Your task to perform on an android device: Empty the shopping cart on ebay.com. Add "razer blade" to the cart on ebay.com Image 0: 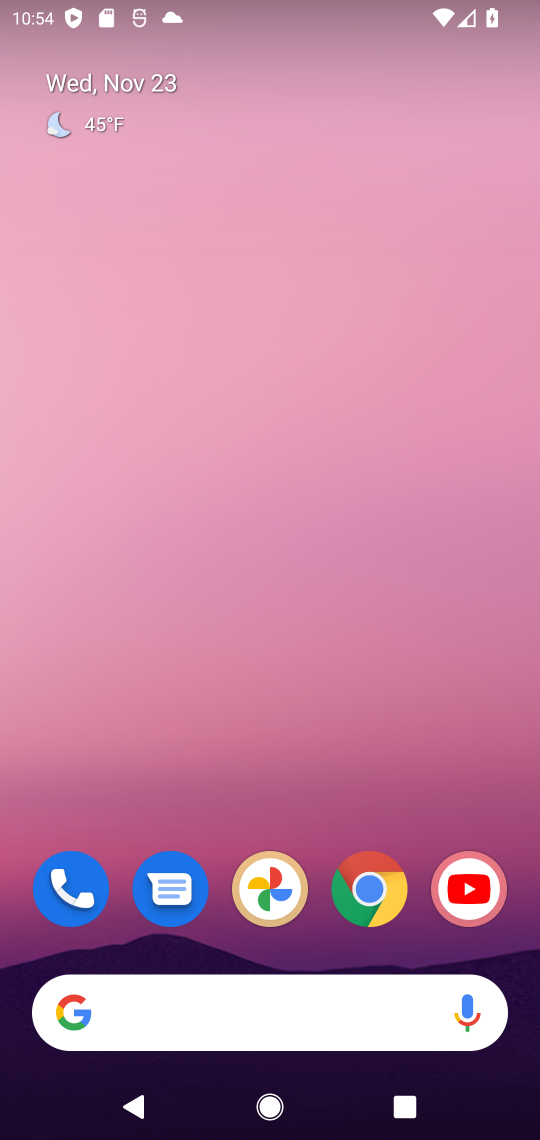
Step 0: click (365, 894)
Your task to perform on an android device: Empty the shopping cart on ebay.com. Add "razer blade" to the cart on ebay.com Image 1: 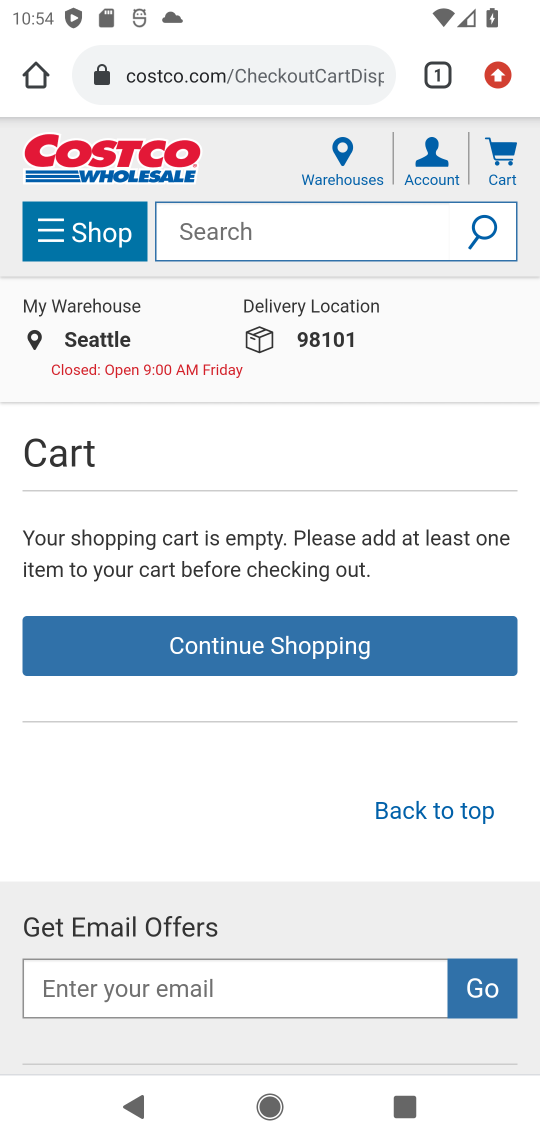
Step 1: click (187, 80)
Your task to perform on an android device: Empty the shopping cart on ebay.com. Add "razer blade" to the cart on ebay.com Image 2: 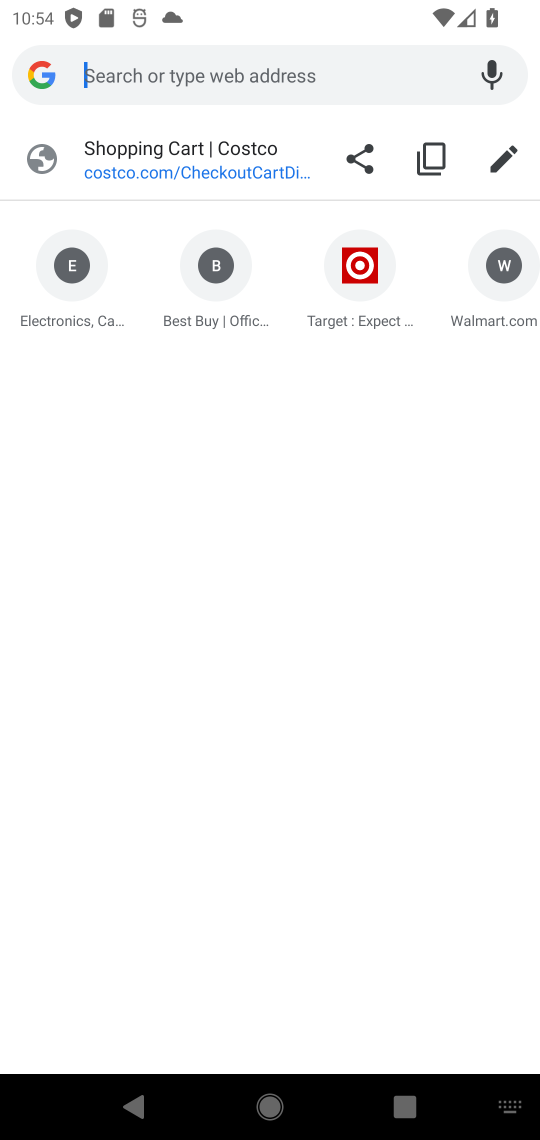
Step 2: type "ebay.com"
Your task to perform on an android device: Empty the shopping cart on ebay.com. Add "razer blade" to the cart on ebay.com Image 3: 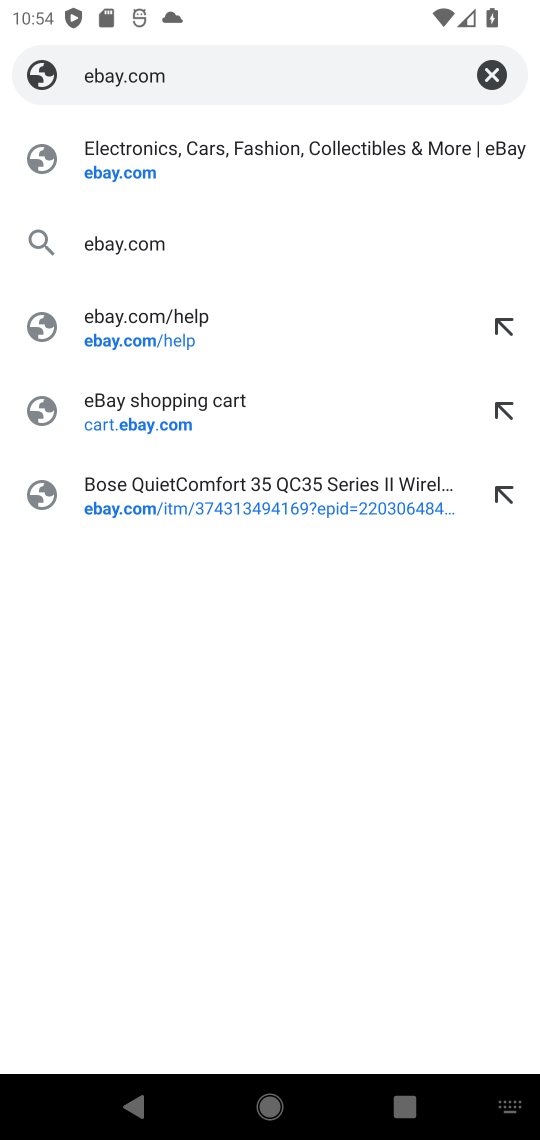
Step 3: click (117, 177)
Your task to perform on an android device: Empty the shopping cart on ebay.com. Add "razer blade" to the cart on ebay.com Image 4: 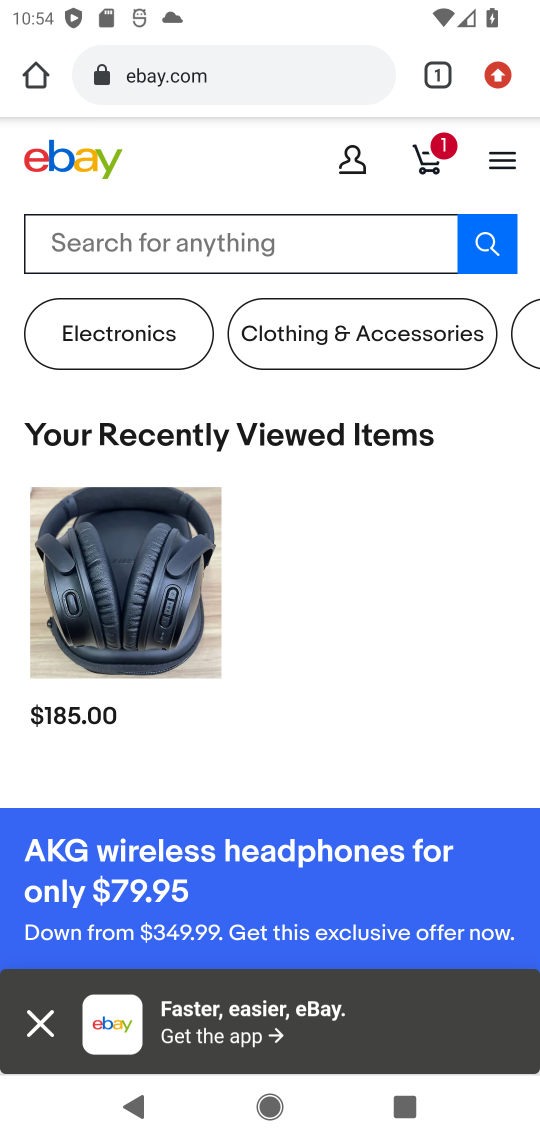
Step 4: drag from (260, 719) to (238, 839)
Your task to perform on an android device: Empty the shopping cart on ebay.com. Add "razer blade" to the cart on ebay.com Image 5: 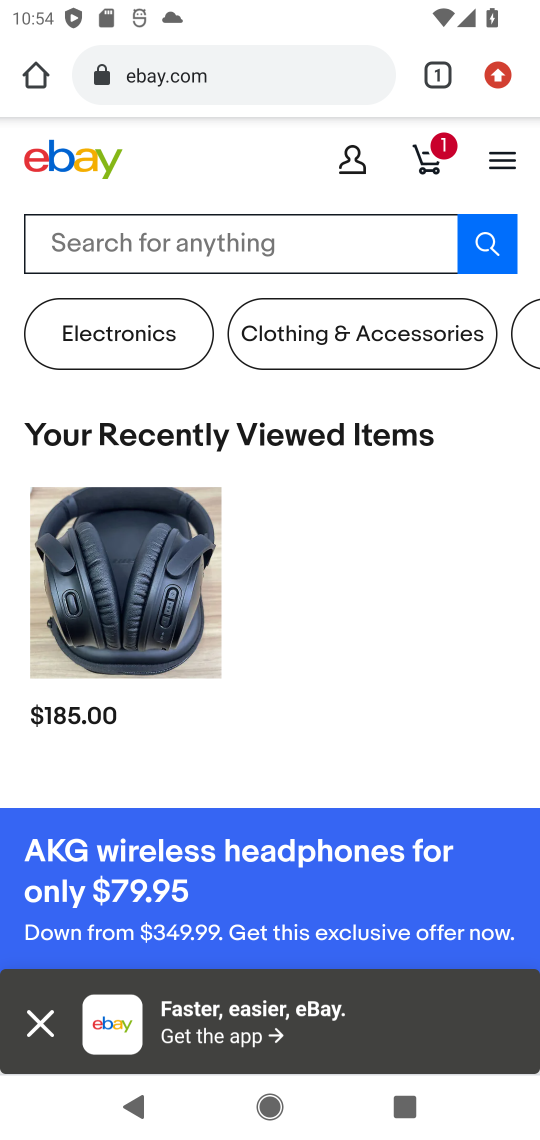
Step 5: click (421, 161)
Your task to perform on an android device: Empty the shopping cart on ebay.com. Add "razer blade" to the cart on ebay.com Image 6: 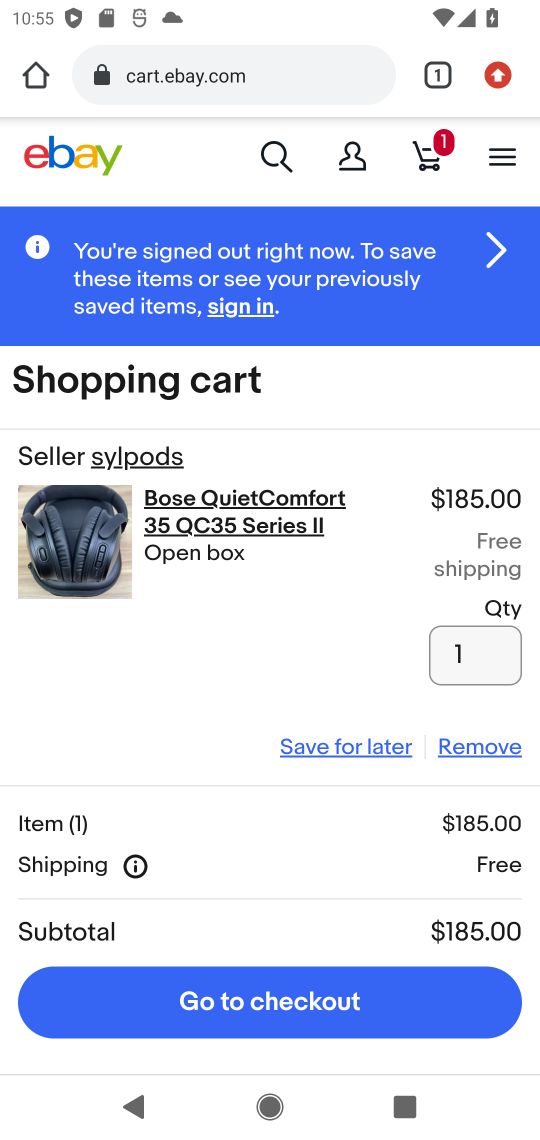
Step 6: click (473, 754)
Your task to perform on an android device: Empty the shopping cart on ebay.com. Add "razer blade" to the cart on ebay.com Image 7: 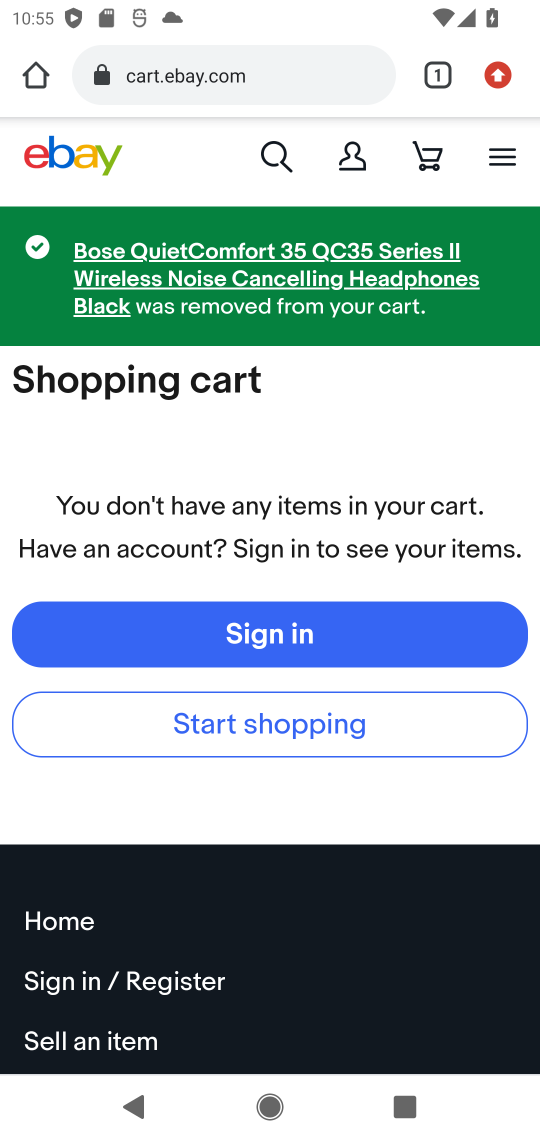
Step 7: click (273, 154)
Your task to perform on an android device: Empty the shopping cart on ebay.com. Add "razer blade" to the cart on ebay.com Image 8: 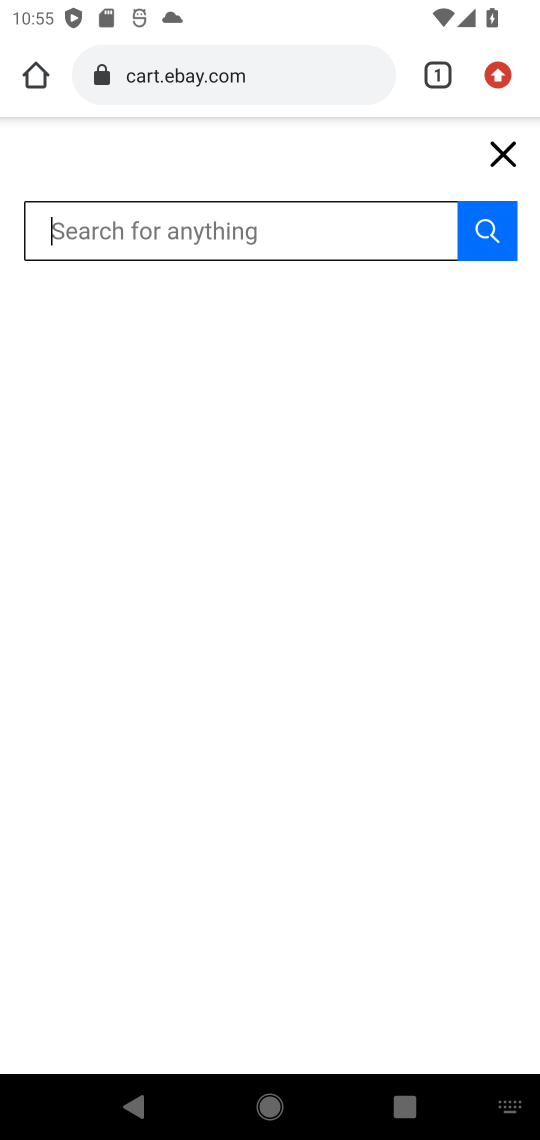
Step 8: type "razer blade"
Your task to perform on an android device: Empty the shopping cart on ebay.com. Add "razer blade" to the cart on ebay.com Image 9: 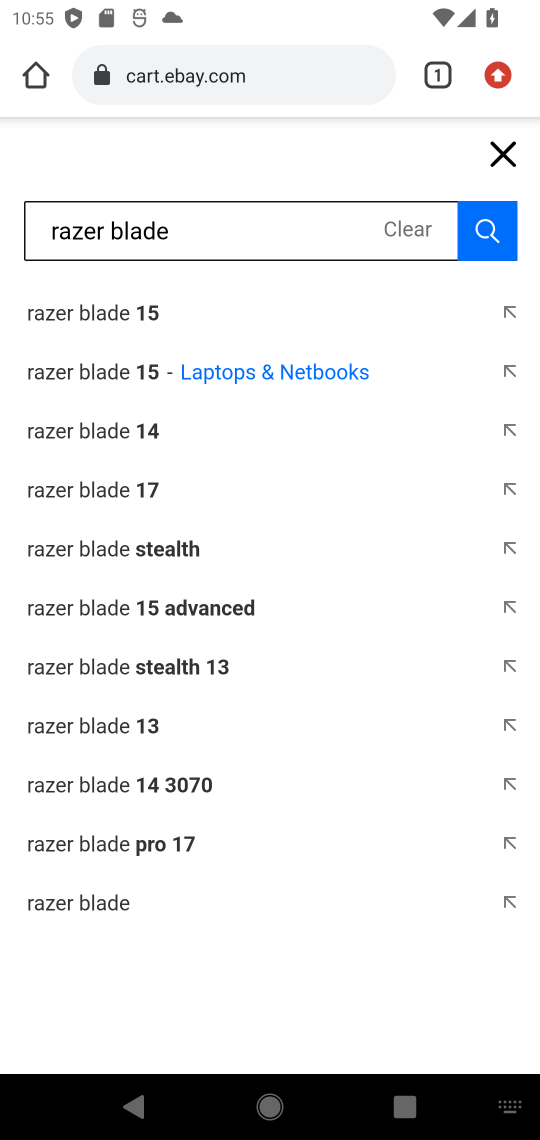
Step 9: click (65, 310)
Your task to perform on an android device: Empty the shopping cart on ebay.com. Add "razer blade" to the cart on ebay.com Image 10: 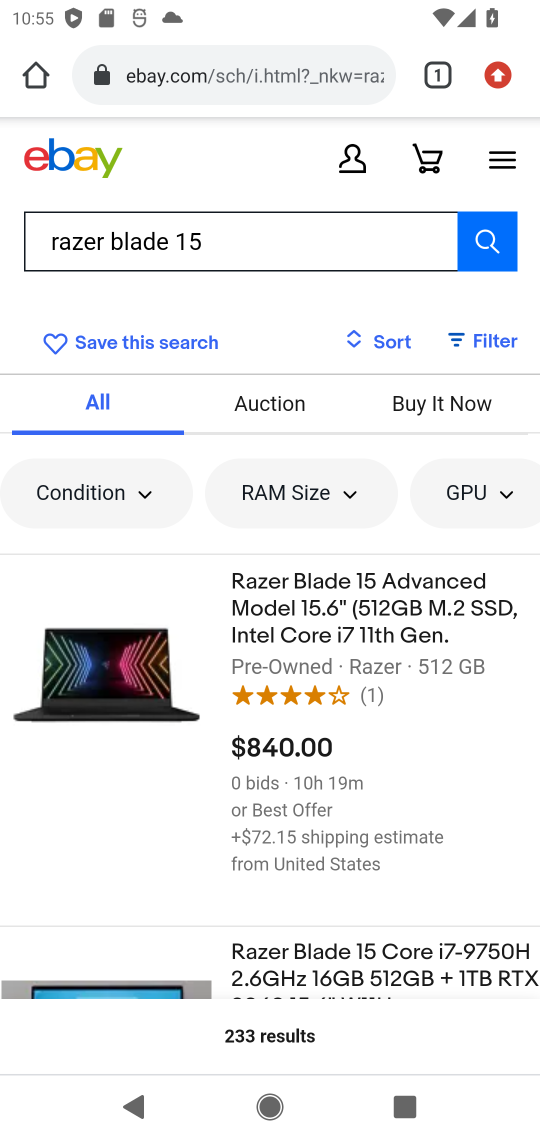
Step 10: drag from (136, 894) to (135, 494)
Your task to perform on an android device: Empty the shopping cart on ebay.com. Add "razer blade" to the cart on ebay.com Image 11: 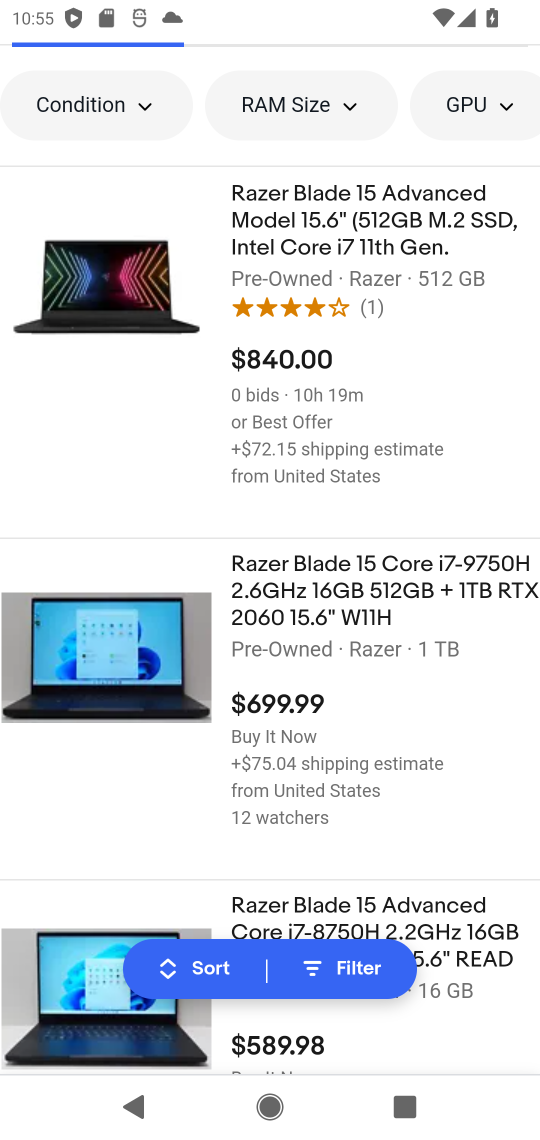
Step 11: click (119, 694)
Your task to perform on an android device: Empty the shopping cart on ebay.com. Add "razer blade" to the cart on ebay.com Image 12: 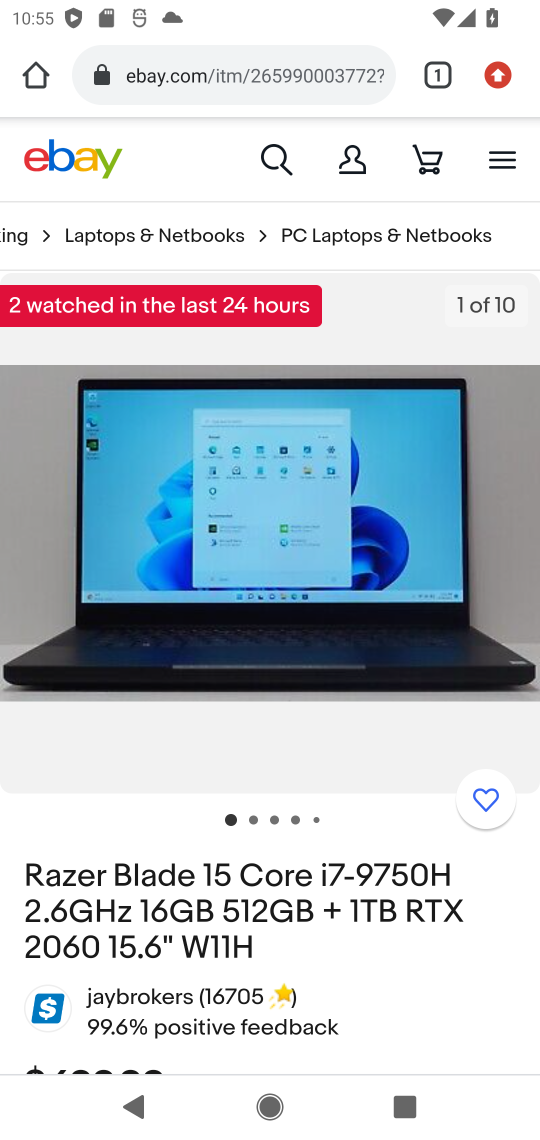
Step 12: drag from (181, 856) to (194, 399)
Your task to perform on an android device: Empty the shopping cart on ebay.com. Add "razer blade" to the cart on ebay.com Image 13: 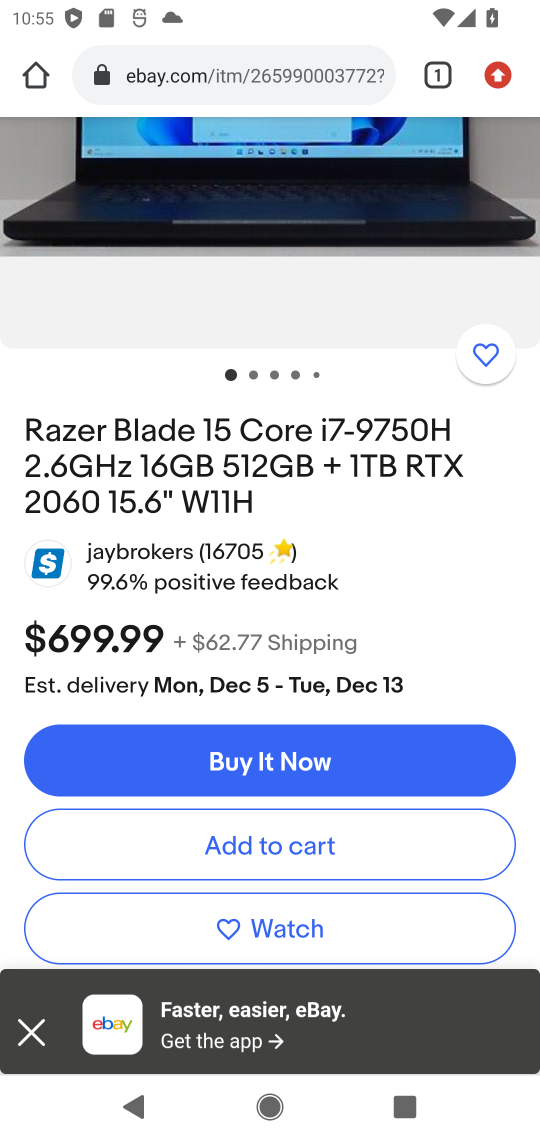
Step 13: click (205, 839)
Your task to perform on an android device: Empty the shopping cart on ebay.com. Add "razer blade" to the cart on ebay.com Image 14: 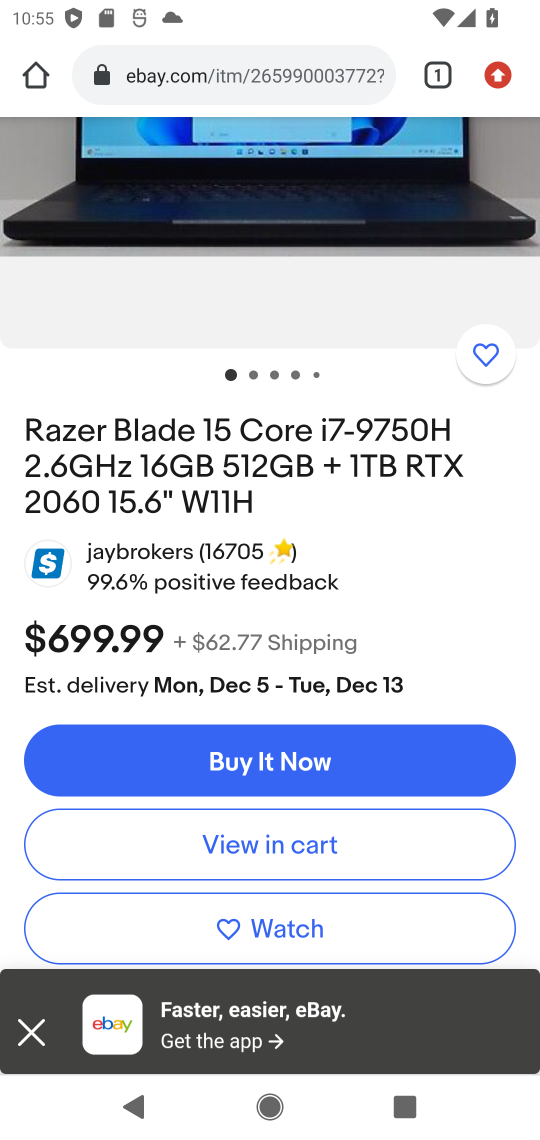
Step 14: task complete